Your task to perform on an android device: Go to CNN.com Image 0: 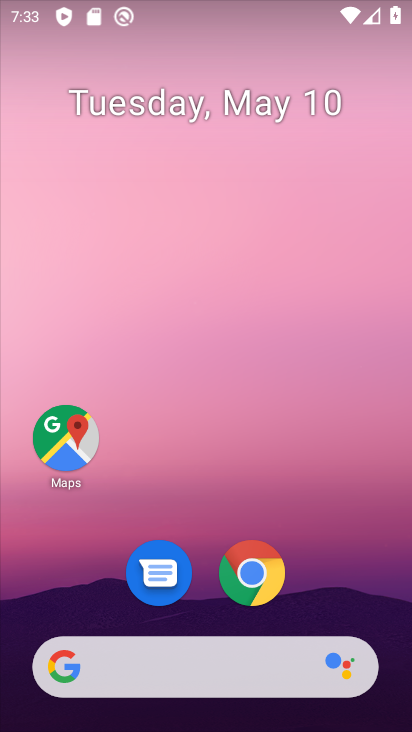
Step 0: press home button
Your task to perform on an android device: Go to CNN.com Image 1: 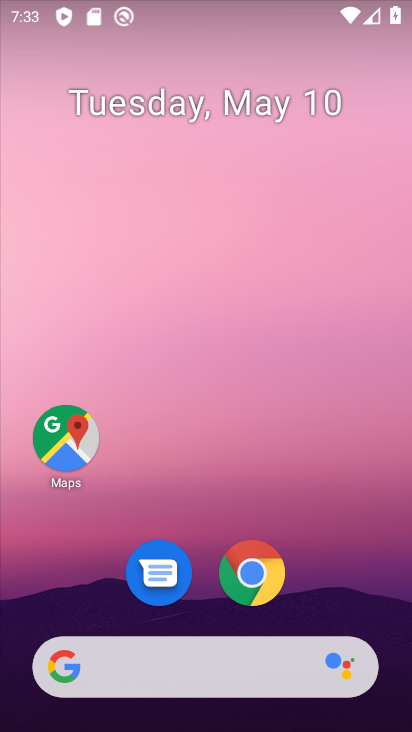
Step 1: drag from (345, 574) to (347, 178)
Your task to perform on an android device: Go to CNN.com Image 2: 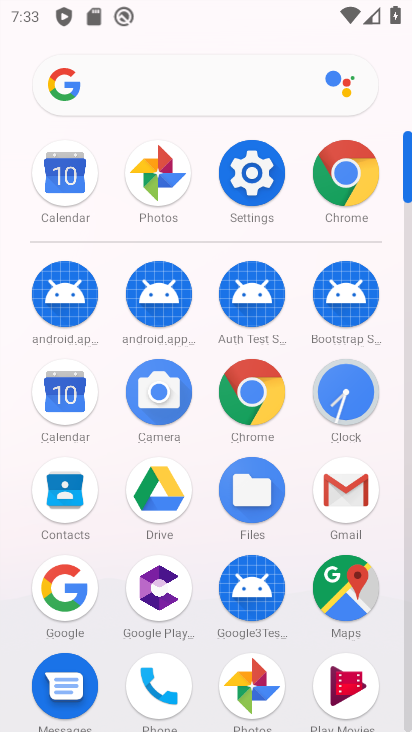
Step 2: click (346, 150)
Your task to perform on an android device: Go to CNN.com Image 3: 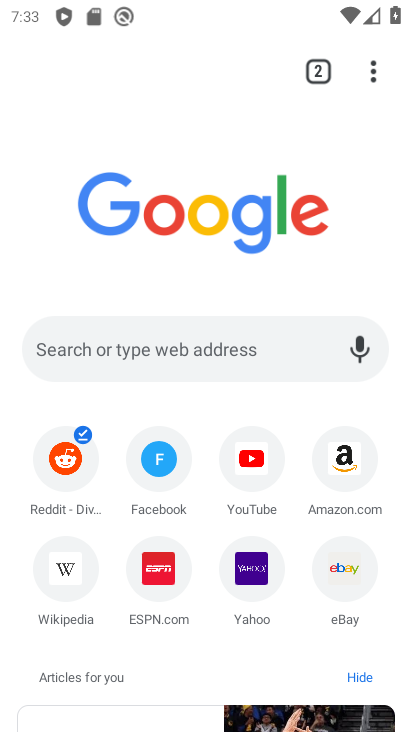
Step 3: click (154, 352)
Your task to perform on an android device: Go to CNN.com Image 4: 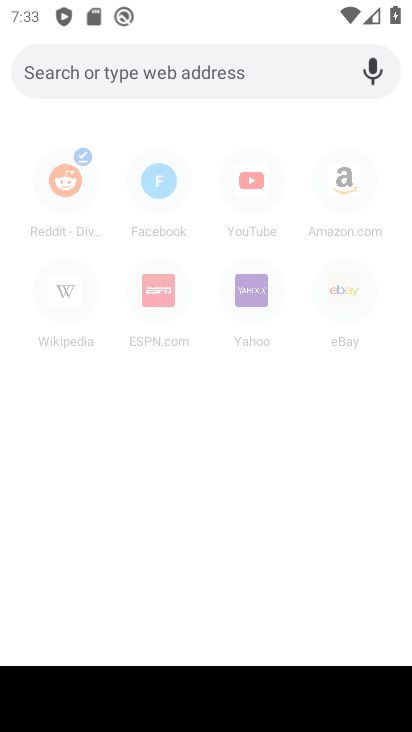
Step 4: type "cnn.com"
Your task to perform on an android device: Go to CNN.com Image 5: 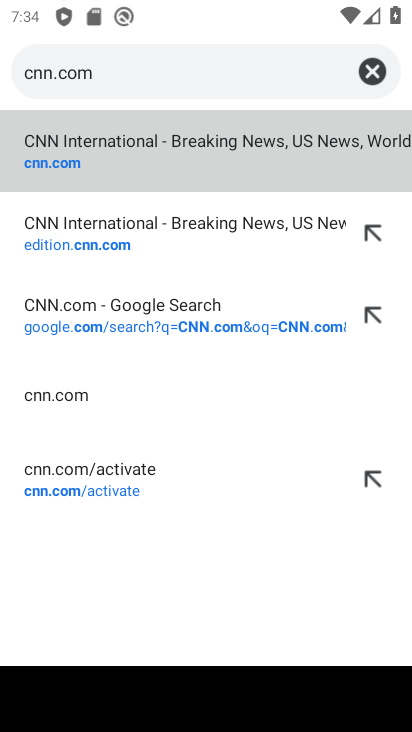
Step 5: click (193, 168)
Your task to perform on an android device: Go to CNN.com Image 6: 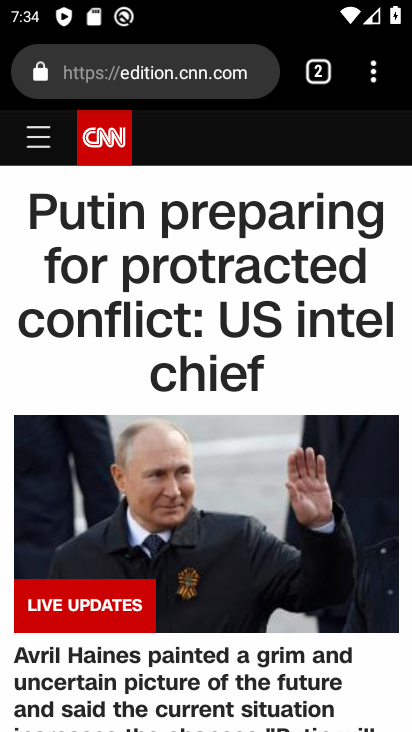
Step 6: task complete